Your task to perform on an android device: search for starred emails in the gmail app Image 0: 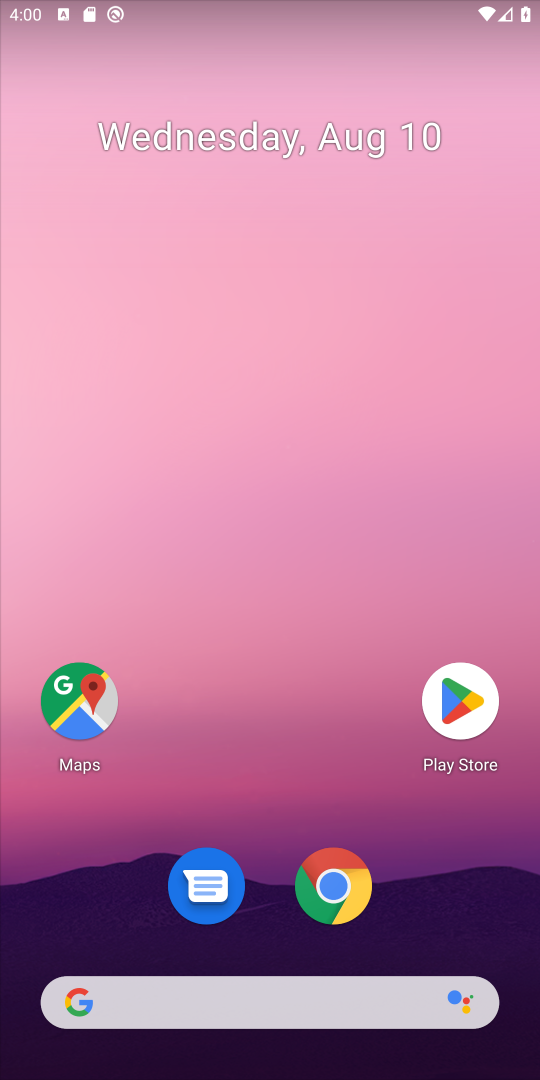
Step 0: drag from (246, 786) to (2, 201)
Your task to perform on an android device: search for starred emails in the gmail app Image 1: 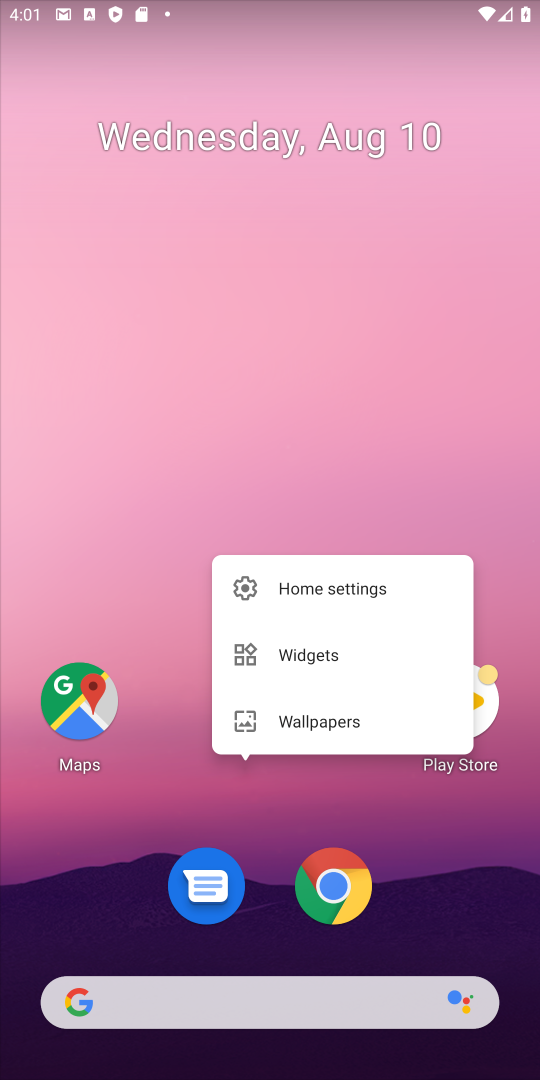
Step 1: drag from (104, 891) to (232, 448)
Your task to perform on an android device: search for starred emails in the gmail app Image 2: 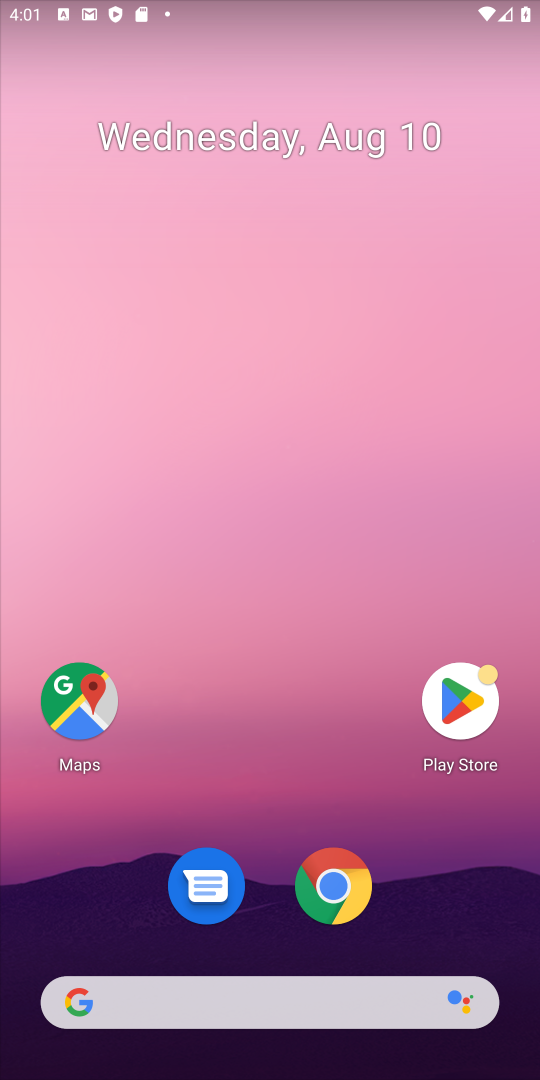
Step 2: drag from (78, 929) to (166, 30)
Your task to perform on an android device: search for starred emails in the gmail app Image 3: 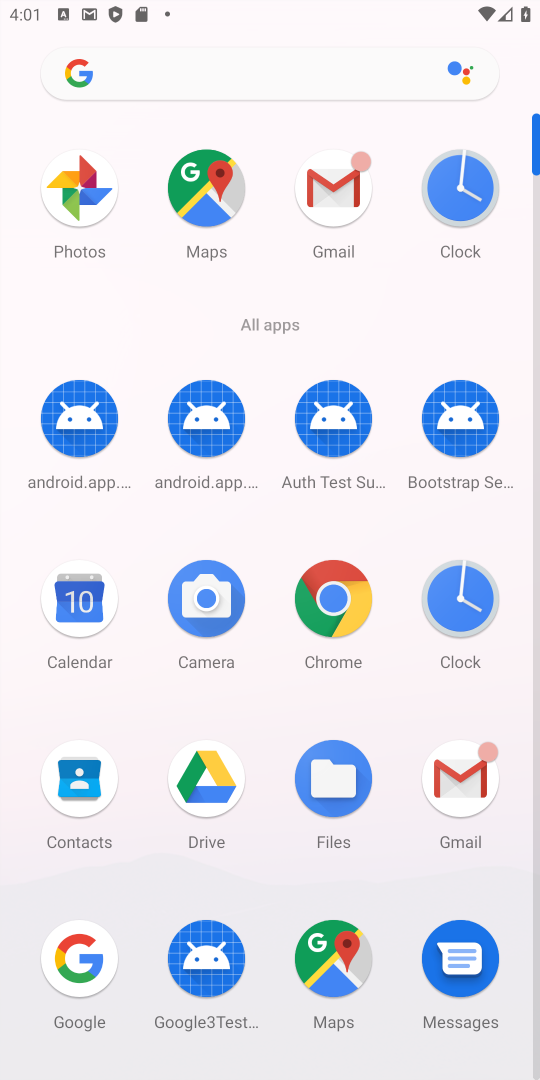
Step 3: click (320, 181)
Your task to perform on an android device: search for starred emails in the gmail app Image 4: 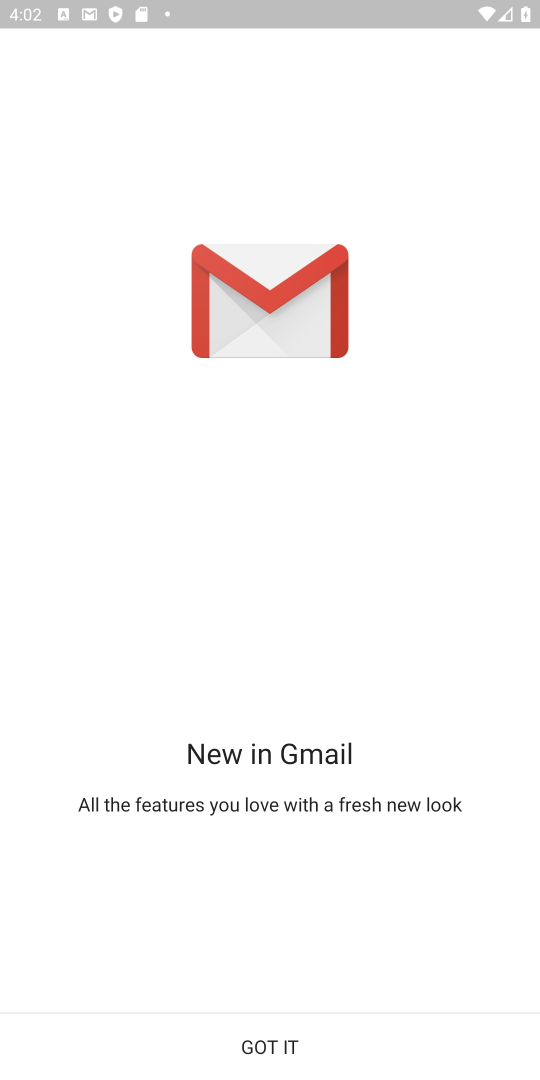
Step 4: click (296, 1038)
Your task to perform on an android device: search for starred emails in the gmail app Image 5: 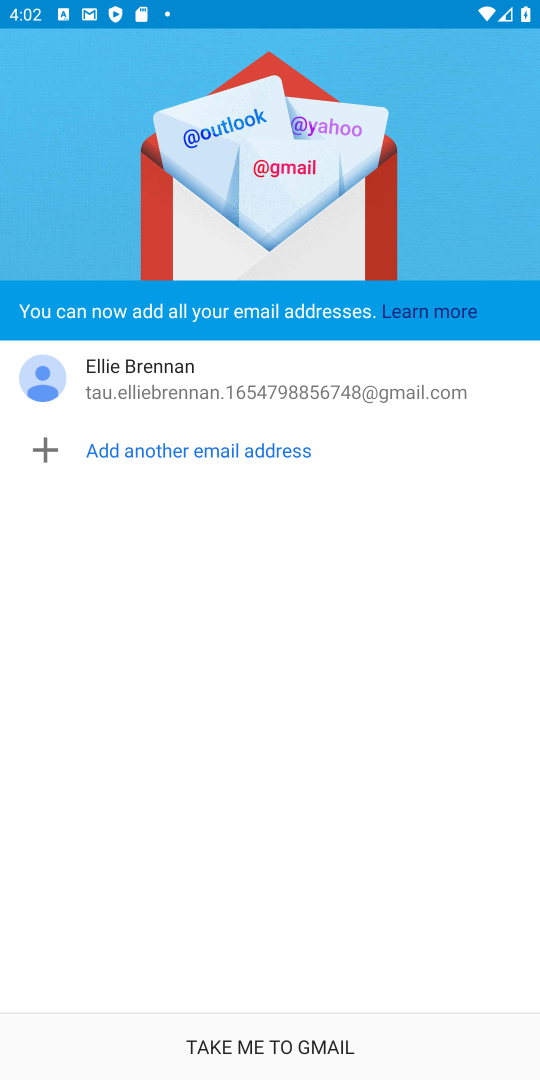
Step 5: click (263, 1058)
Your task to perform on an android device: search for starred emails in the gmail app Image 6: 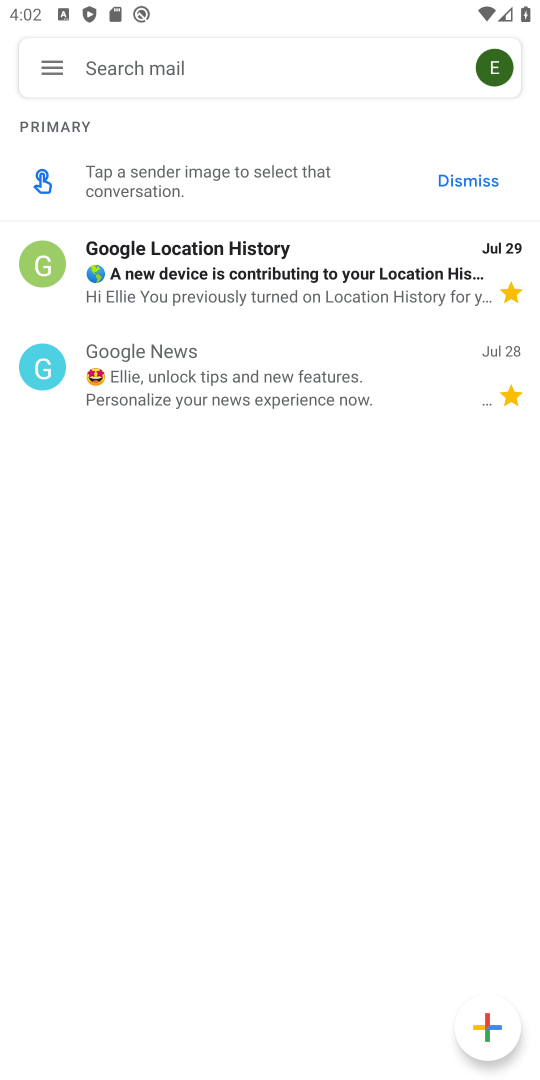
Step 6: click (155, 252)
Your task to perform on an android device: search for starred emails in the gmail app Image 7: 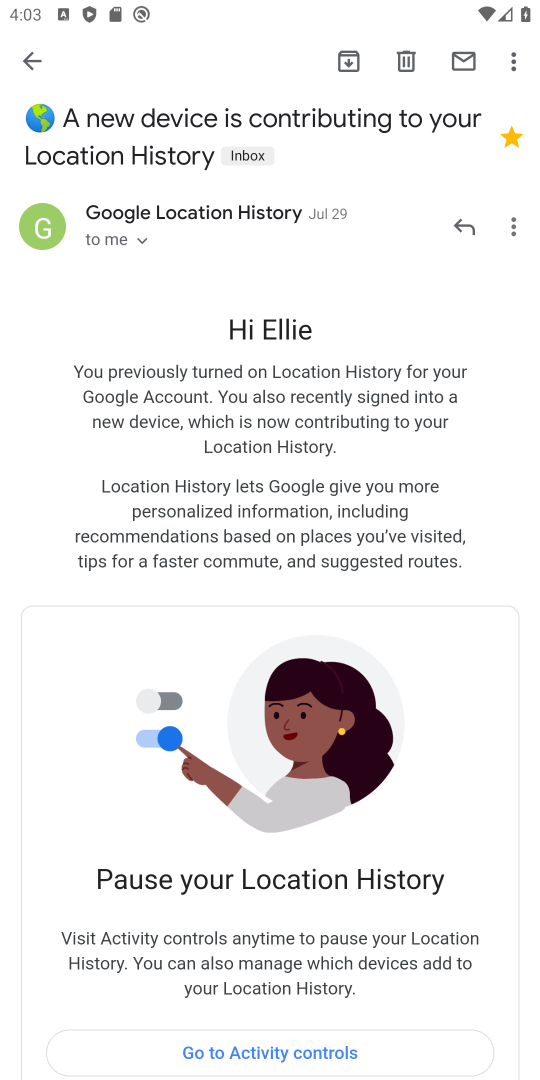
Step 7: task complete